Your task to perform on an android device: turn on showing notifications on the lock screen Image 0: 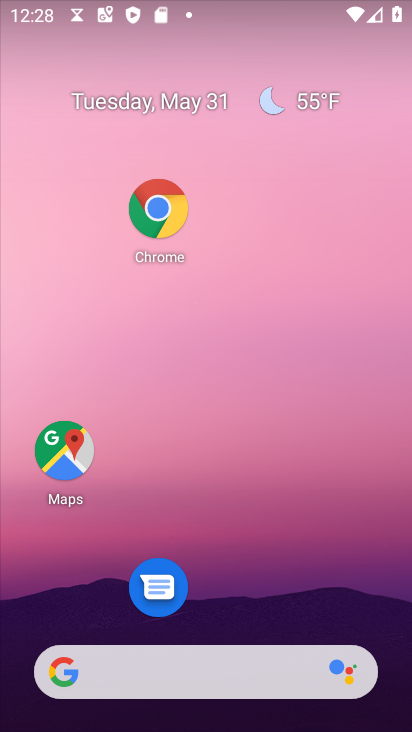
Step 0: drag from (269, 600) to (295, 193)
Your task to perform on an android device: turn on showing notifications on the lock screen Image 1: 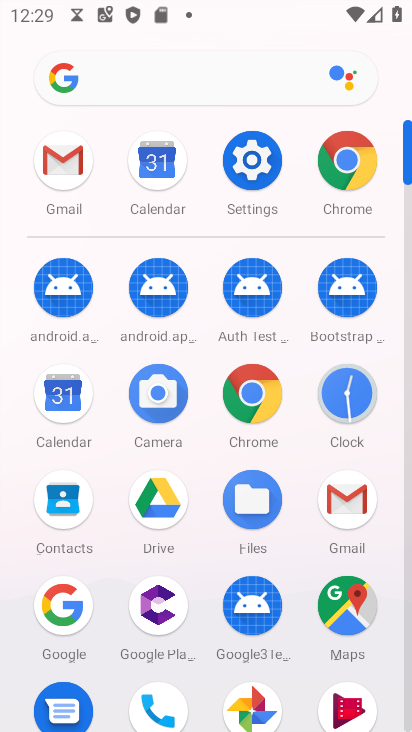
Step 1: click (249, 172)
Your task to perform on an android device: turn on showing notifications on the lock screen Image 2: 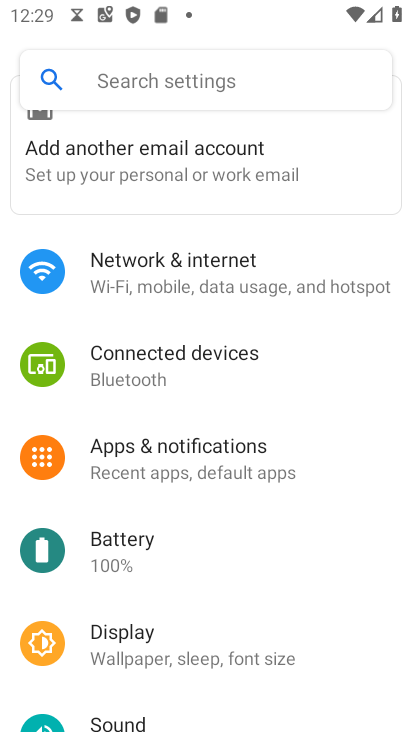
Step 2: click (207, 455)
Your task to perform on an android device: turn on showing notifications on the lock screen Image 3: 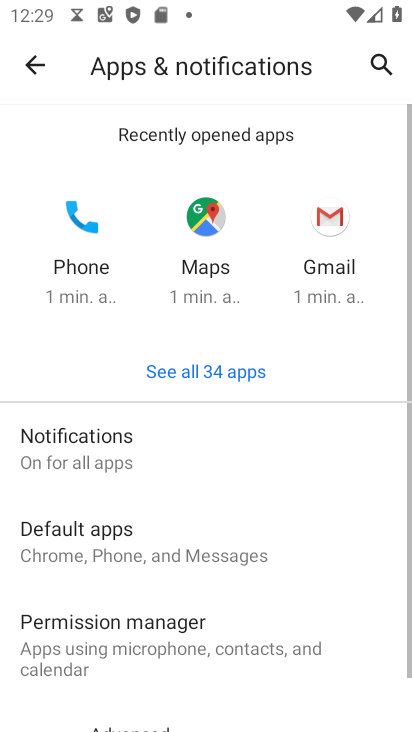
Step 3: click (207, 455)
Your task to perform on an android device: turn on showing notifications on the lock screen Image 4: 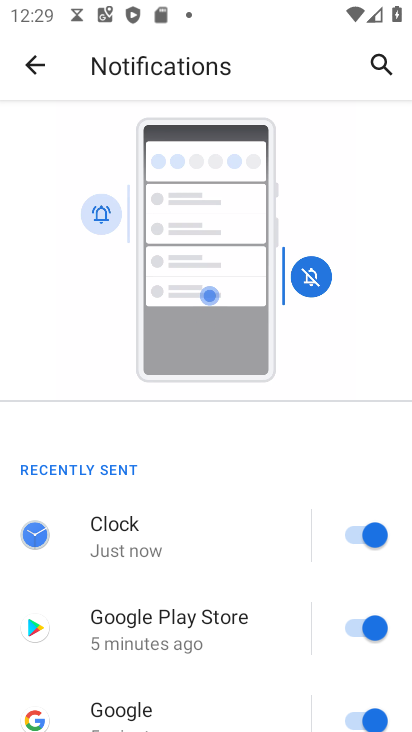
Step 4: task complete